Your task to perform on an android device: Go to internet settings Image 0: 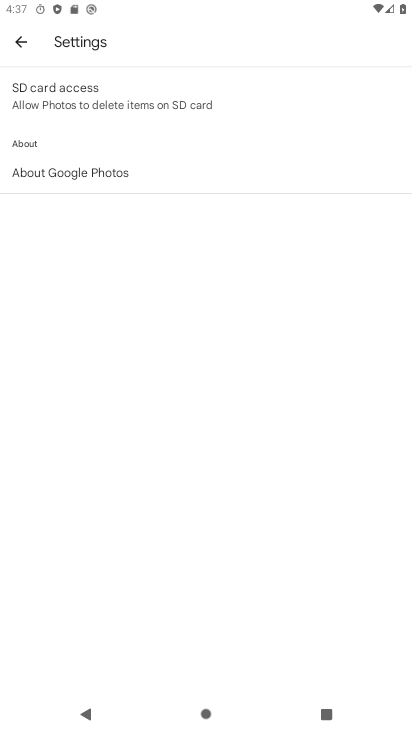
Step 0: press home button
Your task to perform on an android device: Go to internet settings Image 1: 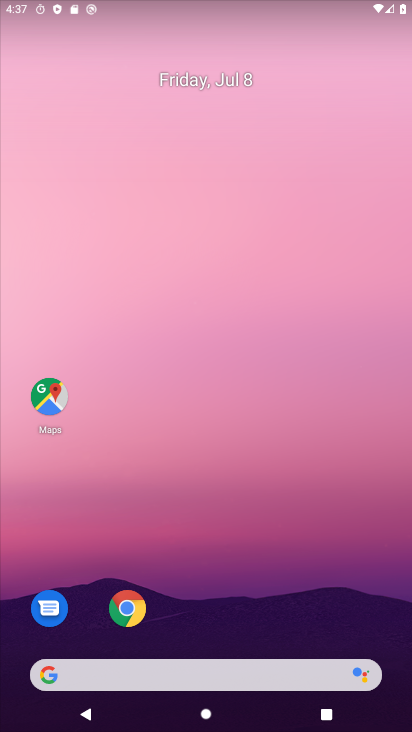
Step 1: click (286, 58)
Your task to perform on an android device: Go to internet settings Image 2: 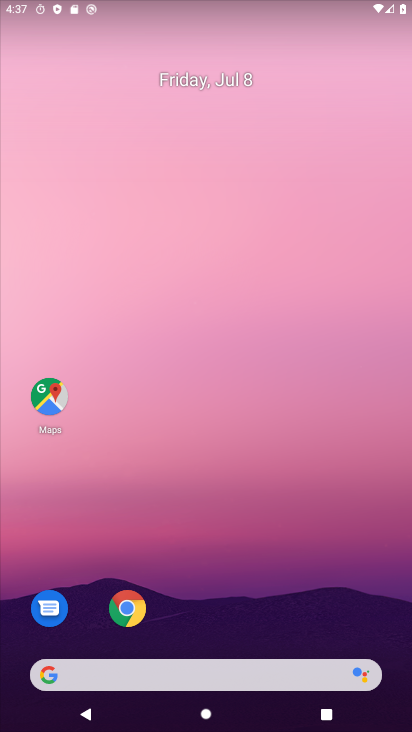
Step 2: drag from (216, 572) to (215, 60)
Your task to perform on an android device: Go to internet settings Image 3: 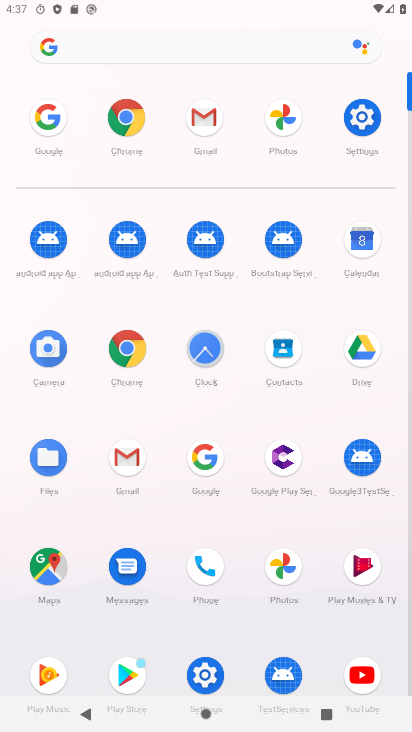
Step 3: click (367, 121)
Your task to perform on an android device: Go to internet settings Image 4: 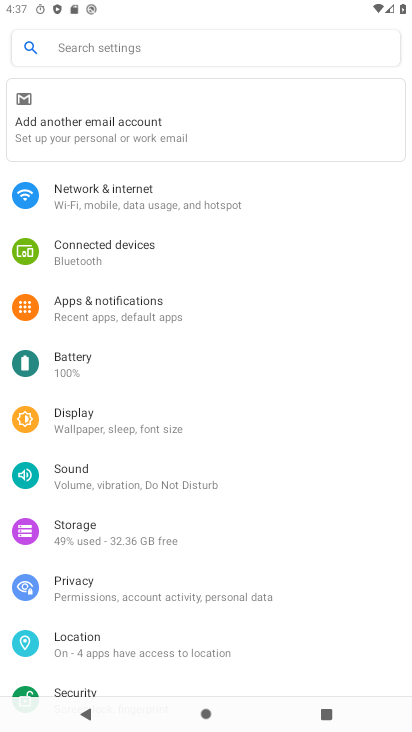
Step 4: click (111, 202)
Your task to perform on an android device: Go to internet settings Image 5: 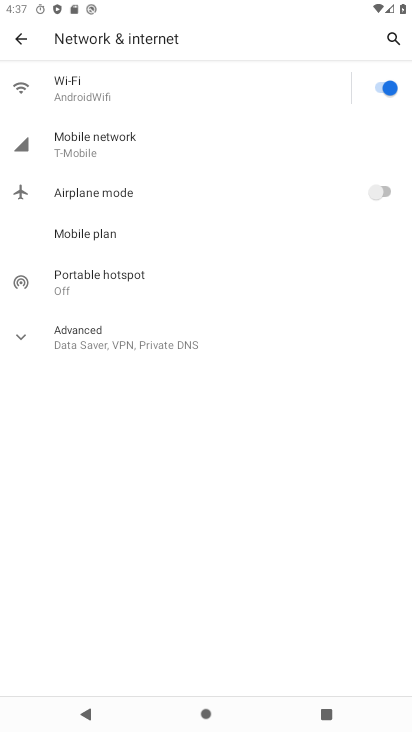
Step 5: task complete